Your task to perform on an android device: Open Google Maps and go to "Timeline" Image 0: 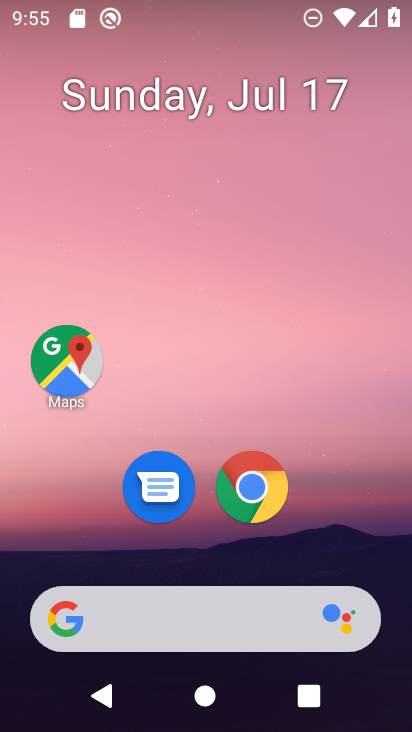
Step 0: press home button
Your task to perform on an android device: Open Google Maps and go to "Timeline" Image 1: 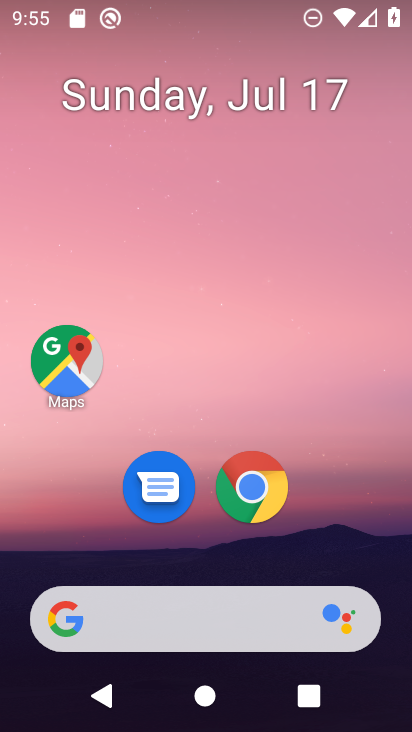
Step 1: drag from (299, 568) to (315, 2)
Your task to perform on an android device: Open Google Maps and go to "Timeline" Image 2: 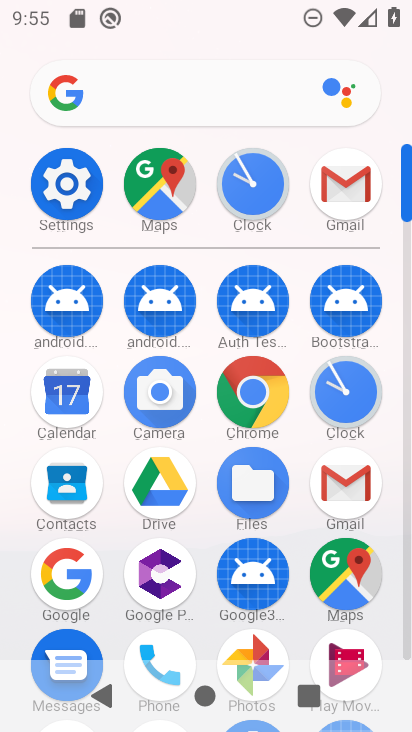
Step 2: click (158, 187)
Your task to perform on an android device: Open Google Maps and go to "Timeline" Image 3: 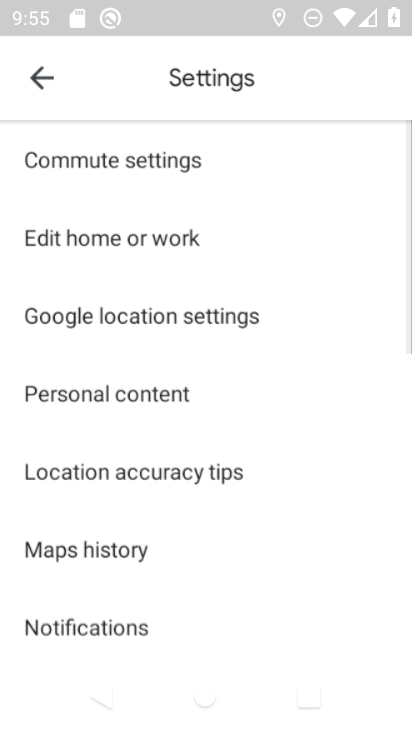
Step 3: click (42, 79)
Your task to perform on an android device: Open Google Maps and go to "Timeline" Image 4: 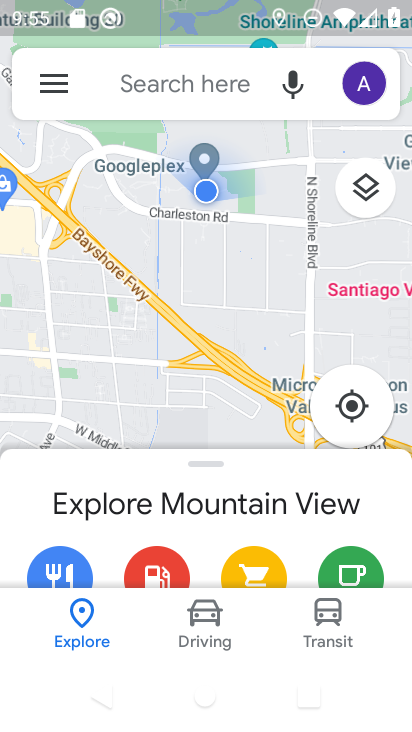
Step 4: click (43, 79)
Your task to perform on an android device: Open Google Maps and go to "Timeline" Image 5: 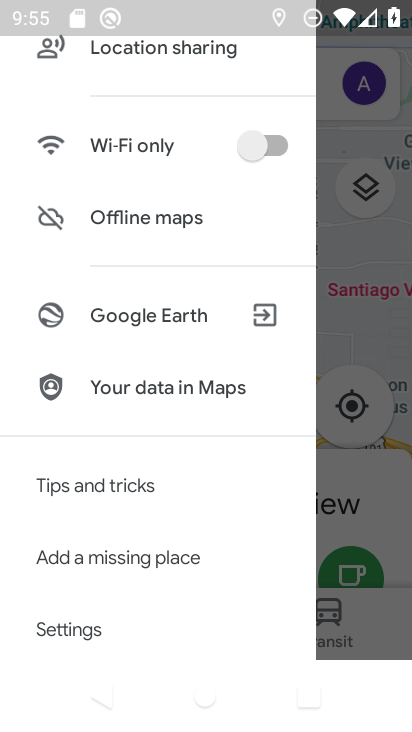
Step 5: drag from (220, 75) to (230, 668)
Your task to perform on an android device: Open Google Maps and go to "Timeline" Image 6: 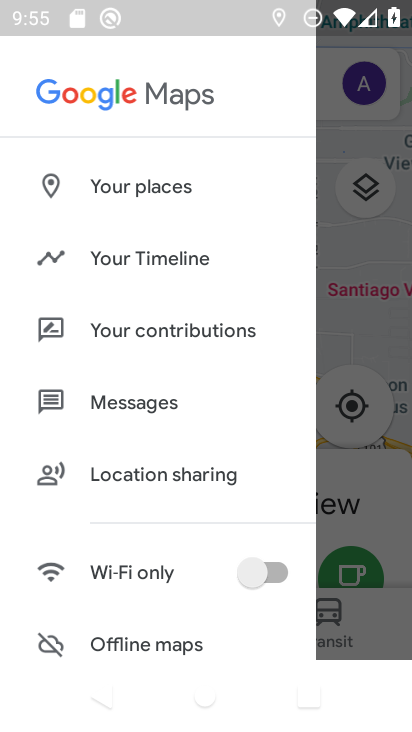
Step 6: click (155, 255)
Your task to perform on an android device: Open Google Maps and go to "Timeline" Image 7: 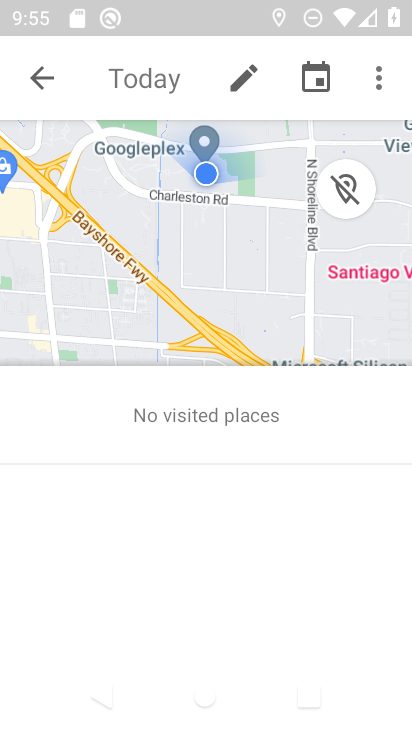
Step 7: task complete